Your task to perform on an android device: show emergency info Image 0: 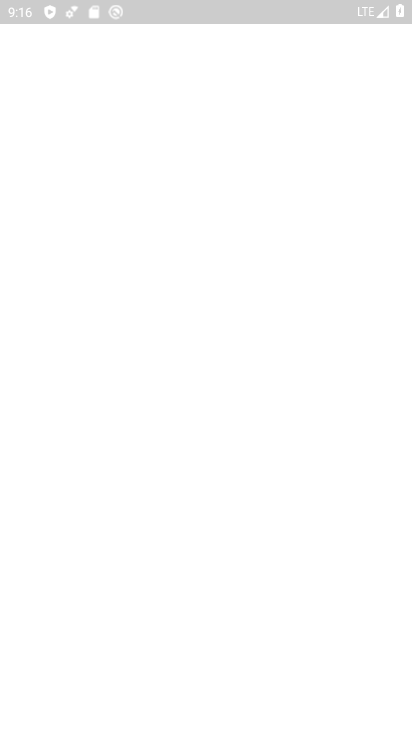
Step 0: drag from (362, 308) to (355, 104)
Your task to perform on an android device: show emergency info Image 1: 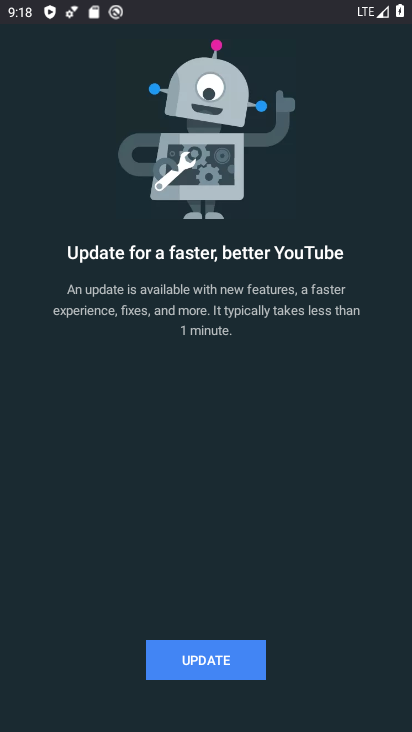
Step 1: press home button
Your task to perform on an android device: show emergency info Image 2: 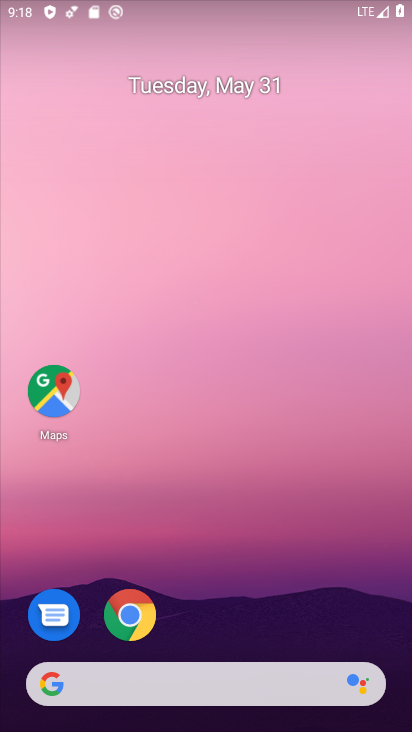
Step 2: drag from (334, 482) to (346, 99)
Your task to perform on an android device: show emergency info Image 3: 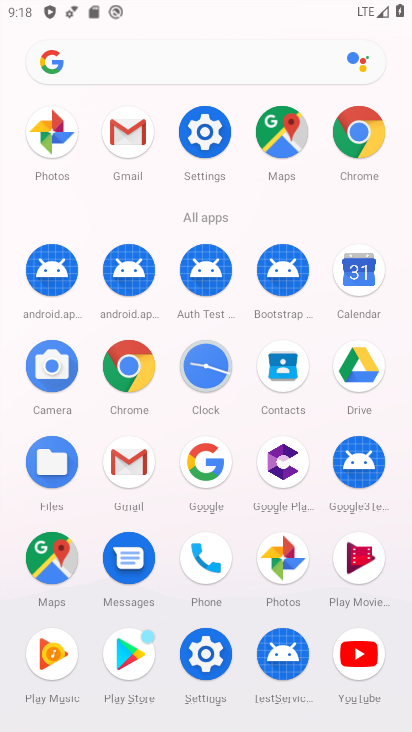
Step 3: click (180, 141)
Your task to perform on an android device: show emergency info Image 4: 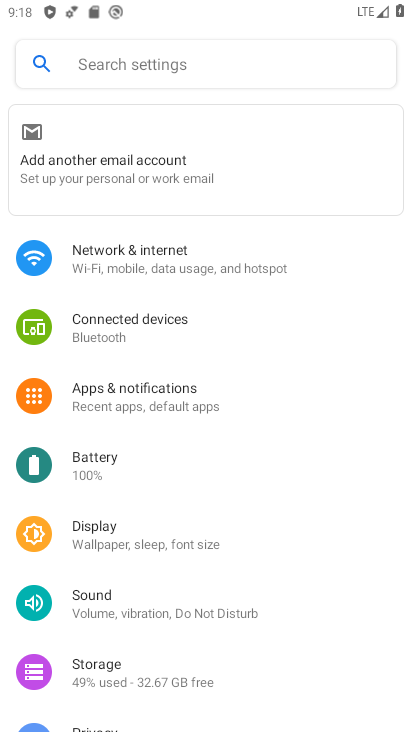
Step 4: drag from (199, 574) to (228, 156)
Your task to perform on an android device: show emergency info Image 5: 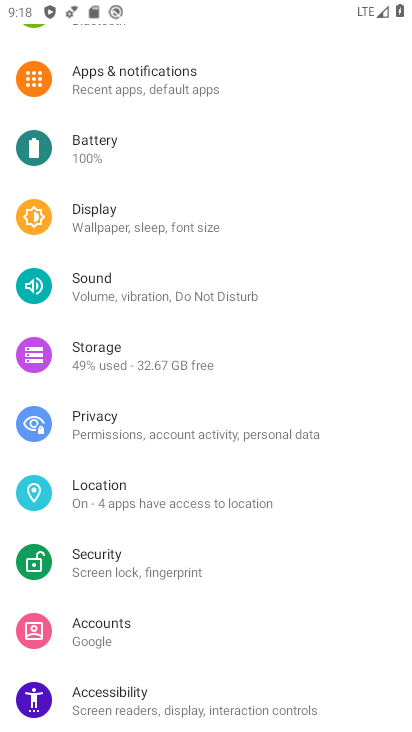
Step 5: drag from (188, 703) to (246, 259)
Your task to perform on an android device: show emergency info Image 6: 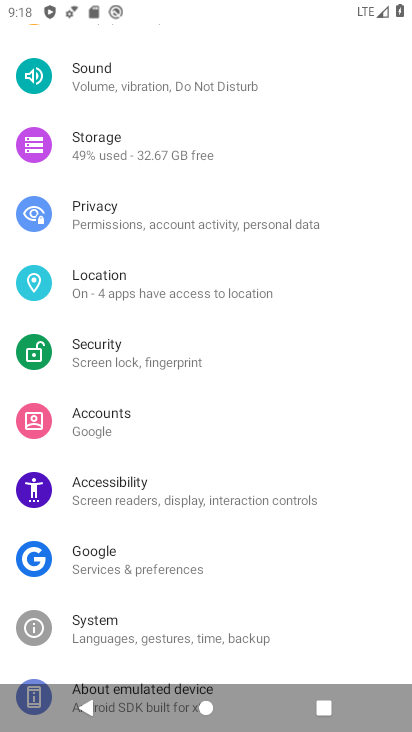
Step 6: drag from (174, 659) to (187, 284)
Your task to perform on an android device: show emergency info Image 7: 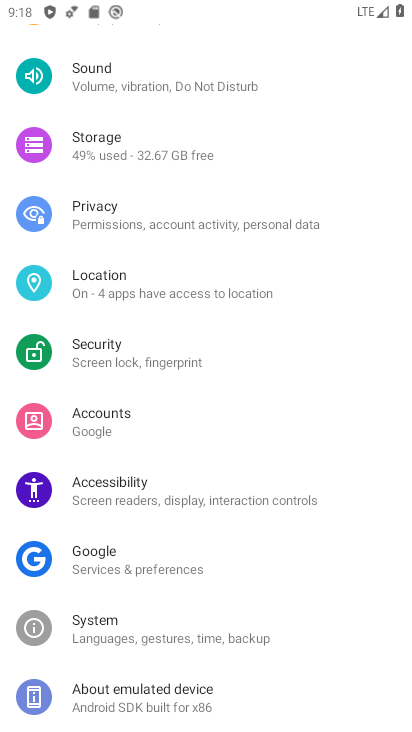
Step 7: click (125, 702)
Your task to perform on an android device: show emergency info Image 8: 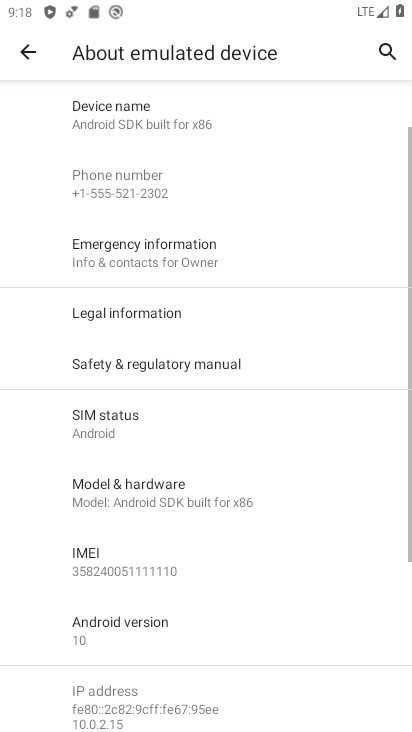
Step 8: click (156, 230)
Your task to perform on an android device: show emergency info Image 9: 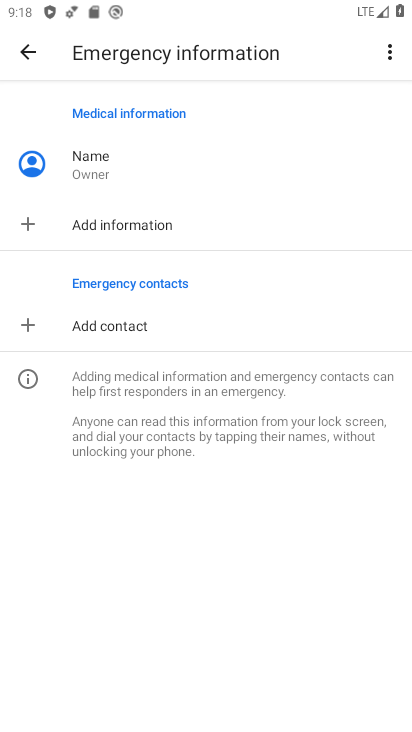
Step 9: task complete